Your task to perform on an android device: delete browsing data in the chrome app Image 0: 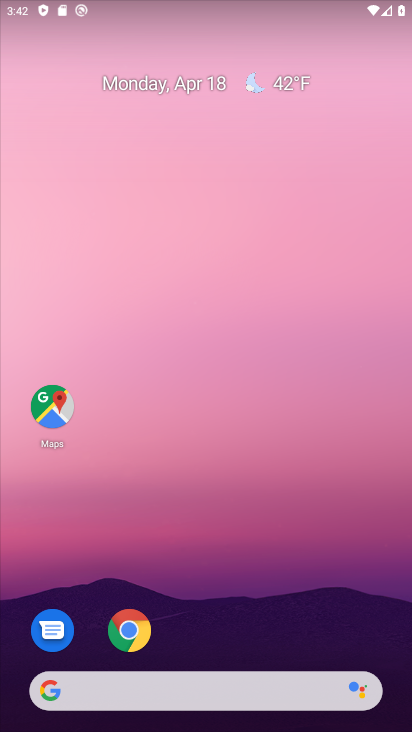
Step 0: click (125, 636)
Your task to perform on an android device: delete browsing data in the chrome app Image 1: 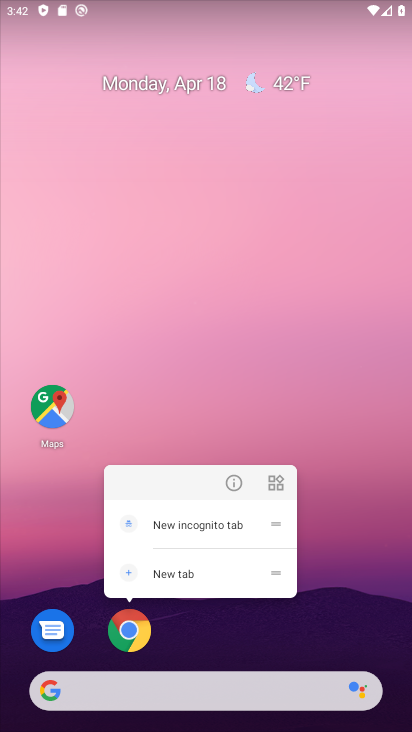
Step 1: click (129, 629)
Your task to perform on an android device: delete browsing data in the chrome app Image 2: 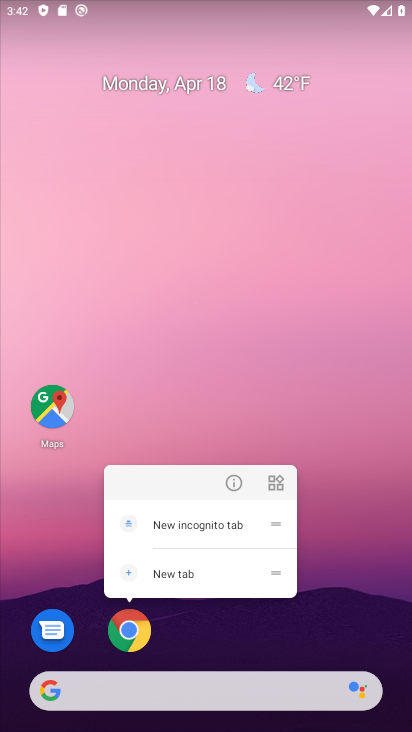
Step 2: click (134, 630)
Your task to perform on an android device: delete browsing data in the chrome app Image 3: 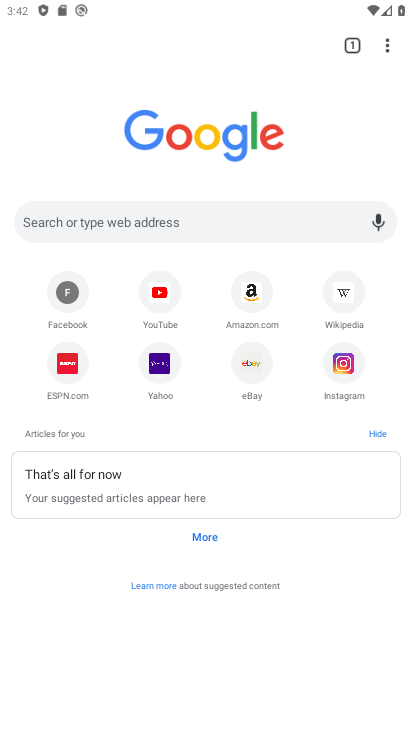
Step 3: click (388, 47)
Your task to perform on an android device: delete browsing data in the chrome app Image 4: 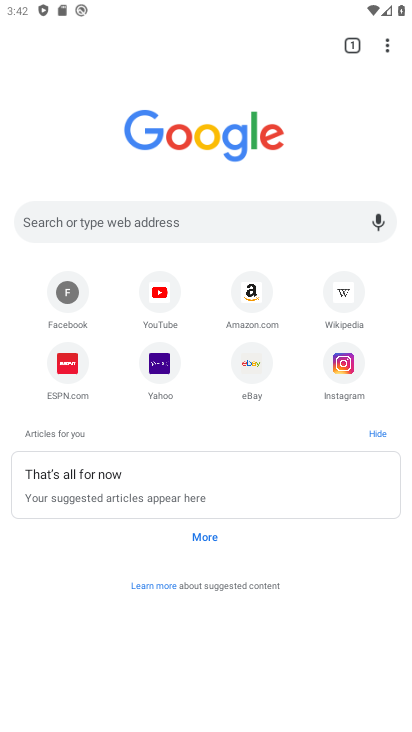
Step 4: drag from (385, 48) to (280, 373)
Your task to perform on an android device: delete browsing data in the chrome app Image 5: 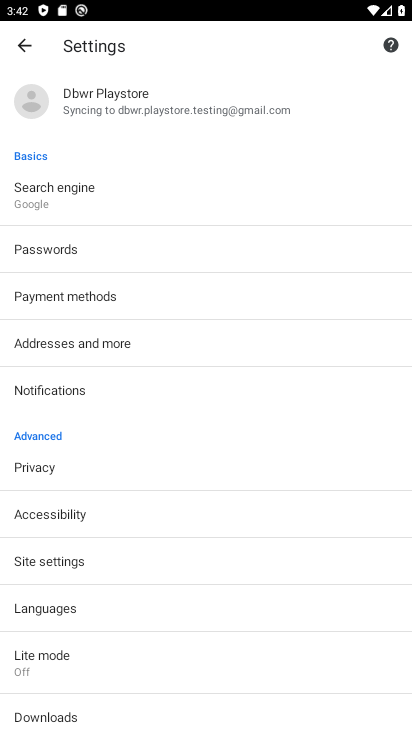
Step 5: click (96, 465)
Your task to perform on an android device: delete browsing data in the chrome app Image 6: 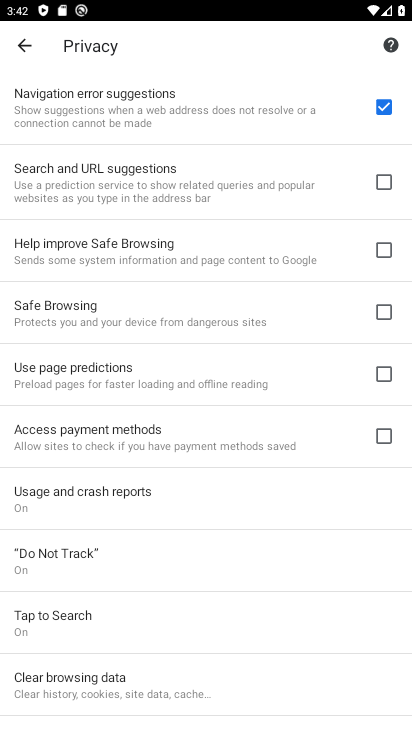
Step 6: drag from (134, 628) to (272, 206)
Your task to perform on an android device: delete browsing data in the chrome app Image 7: 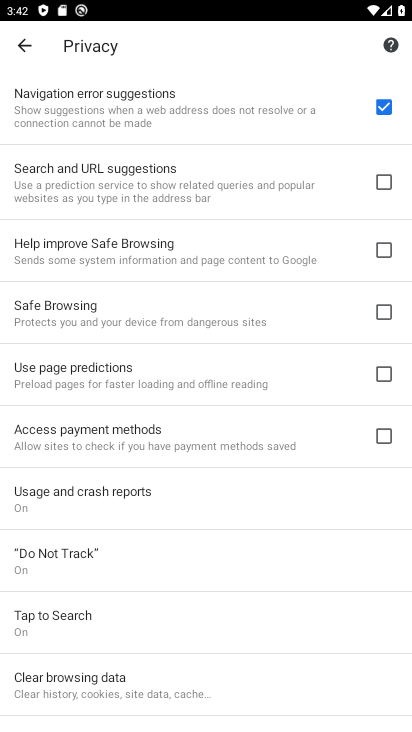
Step 7: click (144, 686)
Your task to perform on an android device: delete browsing data in the chrome app Image 8: 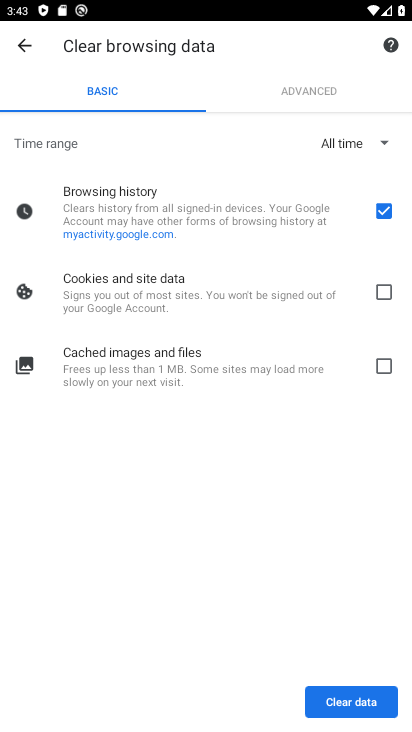
Step 8: click (366, 710)
Your task to perform on an android device: delete browsing data in the chrome app Image 9: 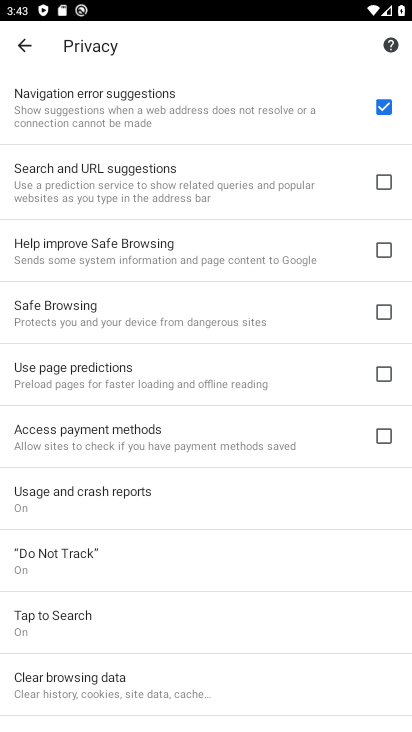
Step 9: task complete